Your task to perform on an android device: turn on wifi Image 0: 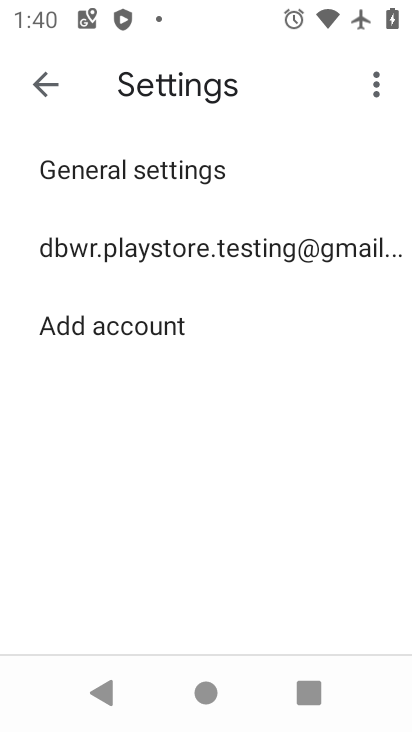
Step 0: press home button
Your task to perform on an android device: turn on wifi Image 1: 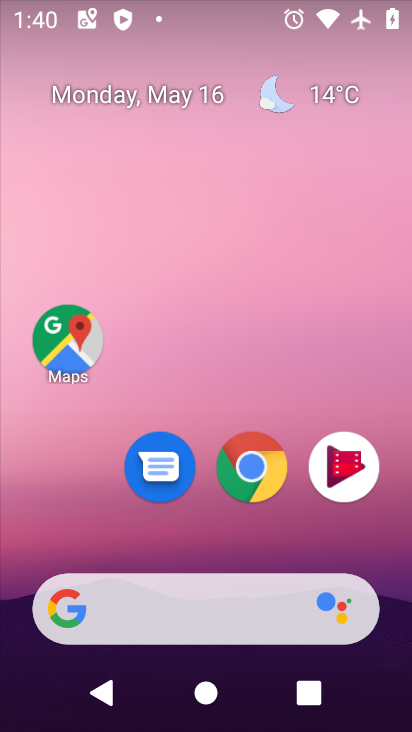
Step 1: drag from (266, 518) to (251, 175)
Your task to perform on an android device: turn on wifi Image 2: 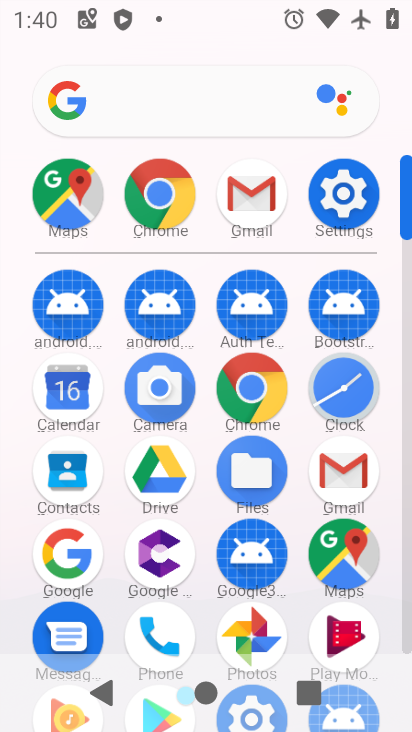
Step 2: click (325, 190)
Your task to perform on an android device: turn on wifi Image 3: 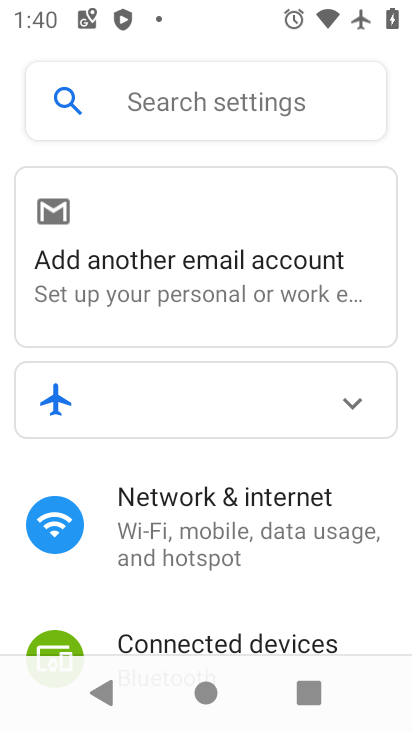
Step 3: drag from (201, 548) to (242, 195)
Your task to perform on an android device: turn on wifi Image 4: 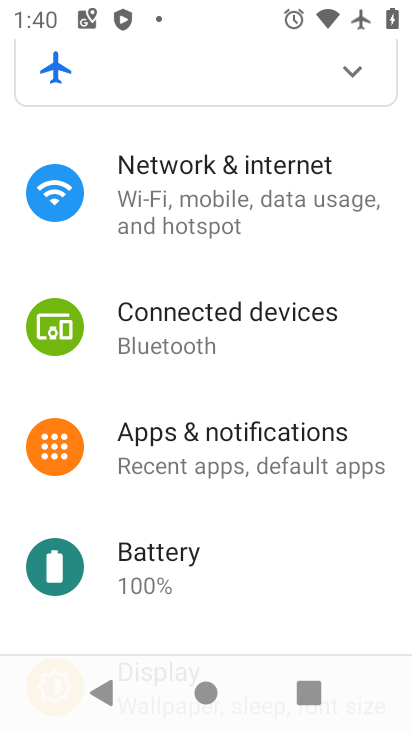
Step 4: click (197, 224)
Your task to perform on an android device: turn on wifi Image 5: 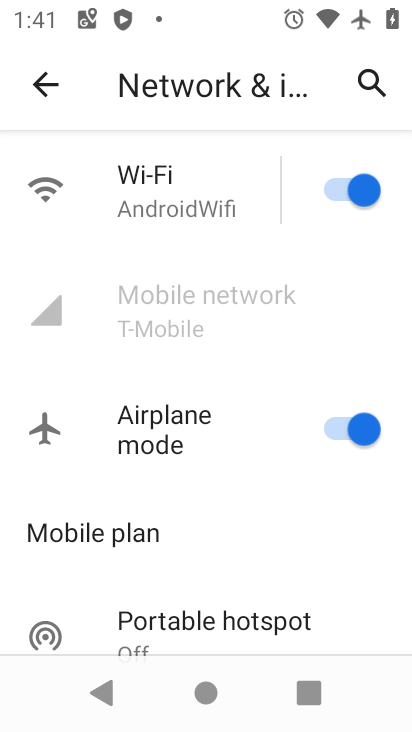
Step 5: task complete